Your task to perform on an android device: Open Amazon Image 0: 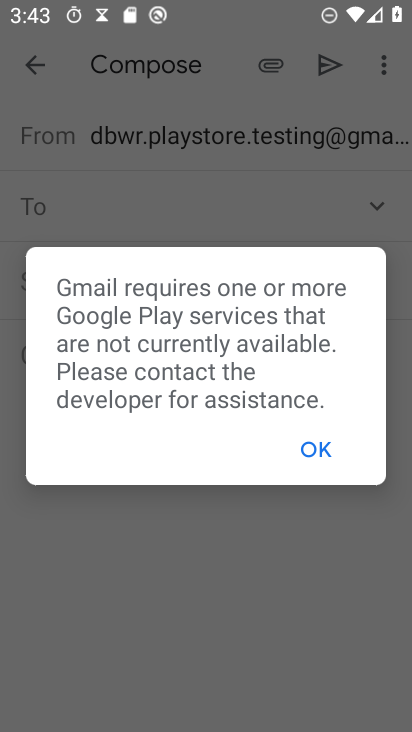
Step 0: press back button
Your task to perform on an android device: Open Amazon Image 1: 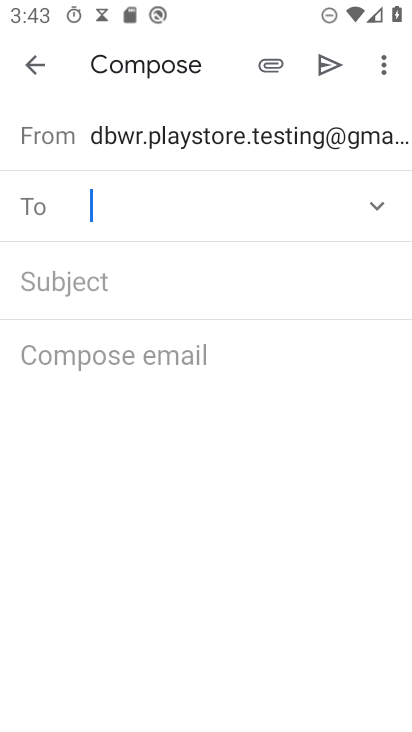
Step 1: click (29, 64)
Your task to perform on an android device: Open Amazon Image 2: 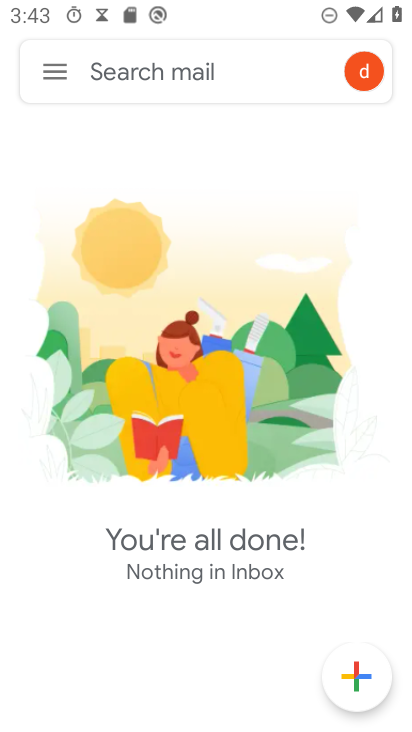
Step 2: press back button
Your task to perform on an android device: Open Amazon Image 3: 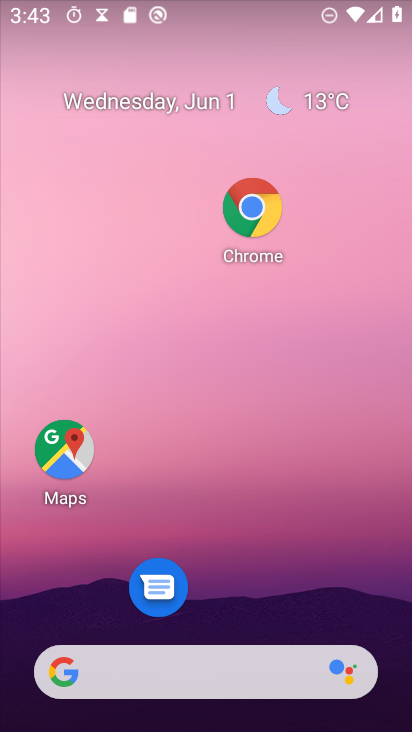
Step 3: drag from (232, 683) to (169, 183)
Your task to perform on an android device: Open Amazon Image 4: 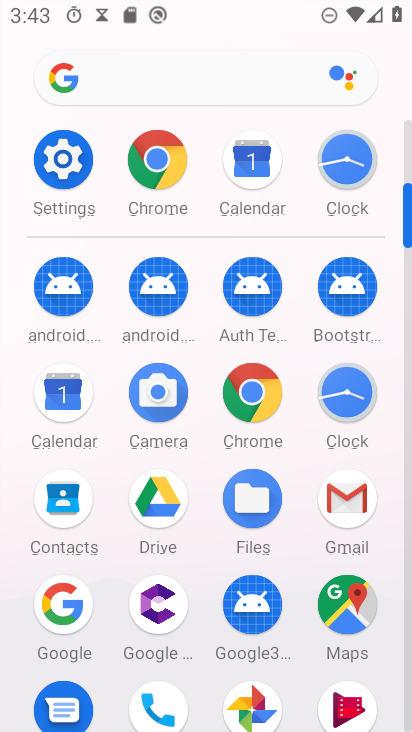
Step 4: click (158, 167)
Your task to perform on an android device: Open Amazon Image 5: 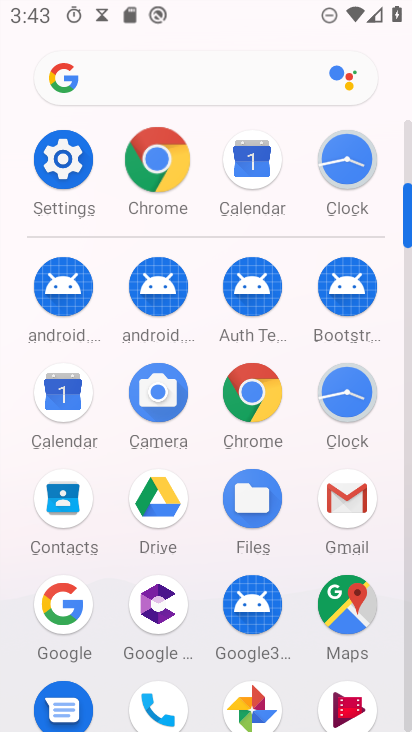
Step 5: click (158, 167)
Your task to perform on an android device: Open Amazon Image 6: 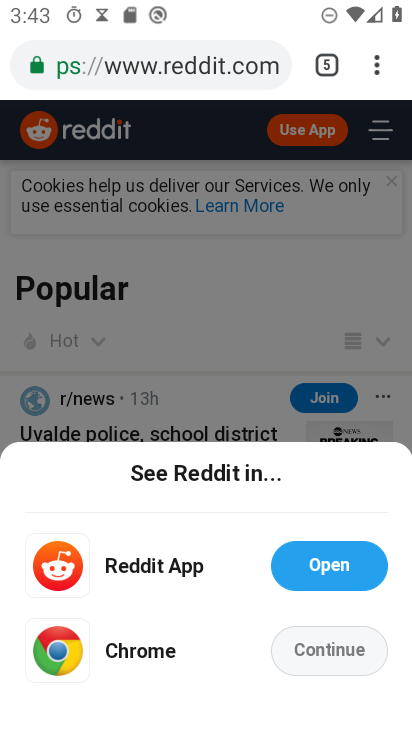
Step 6: click (382, 68)
Your task to perform on an android device: Open Amazon Image 7: 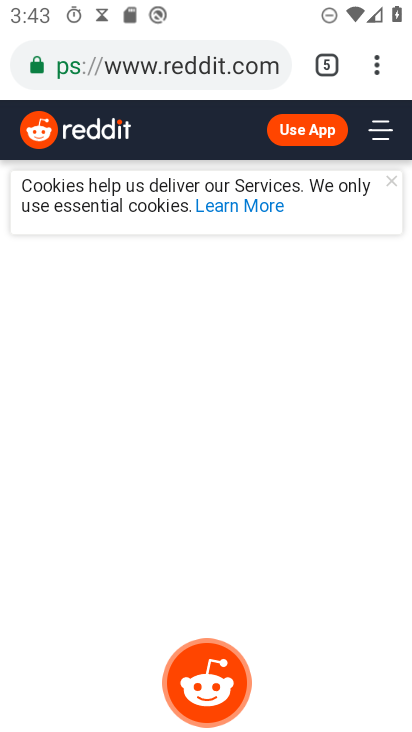
Step 7: drag from (382, 65) to (121, 123)
Your task to perform on an android device: Open Amazon Image 8: 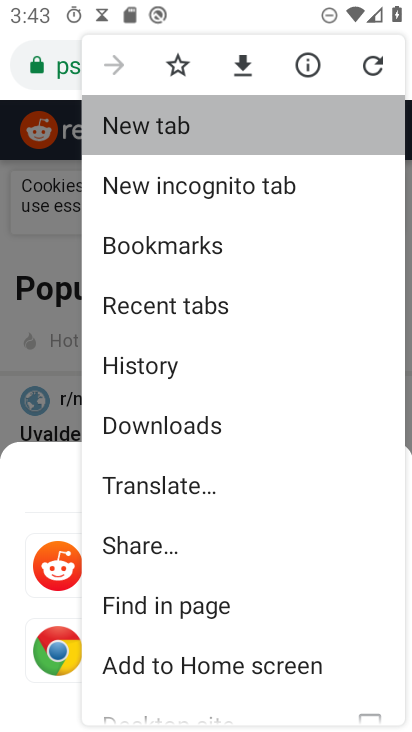
Step 8: click (121, 125)
Your task to perform on an android device: Open Amazon Image 9: 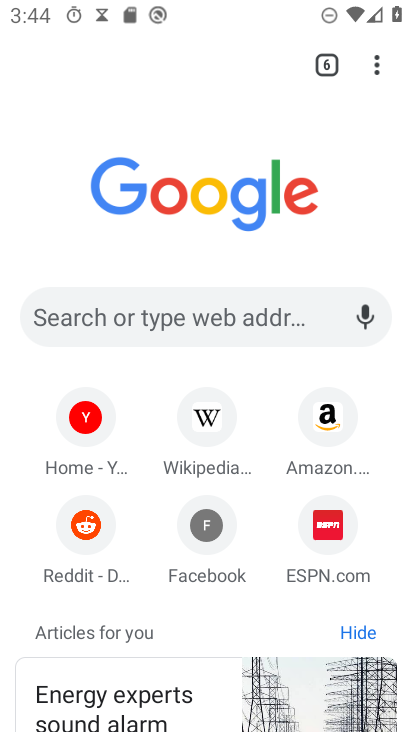
Step 9: click (325, 411)
Your task to perform on an android device: Open Amazon Image 10: 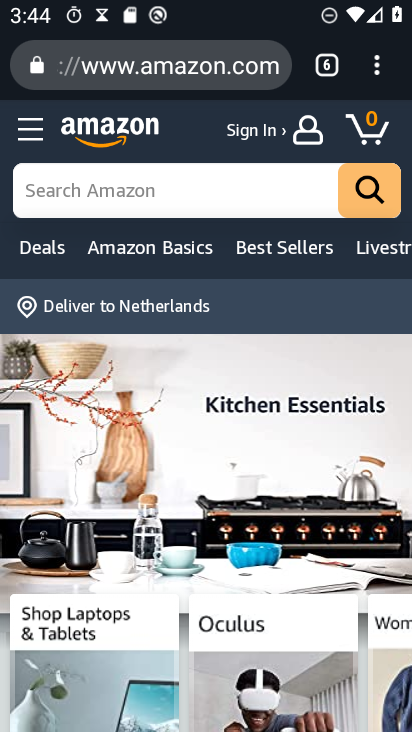
Step 10: task complete